Your task to perform on an android device: turn vacation reply on in the gmail app Image 0: 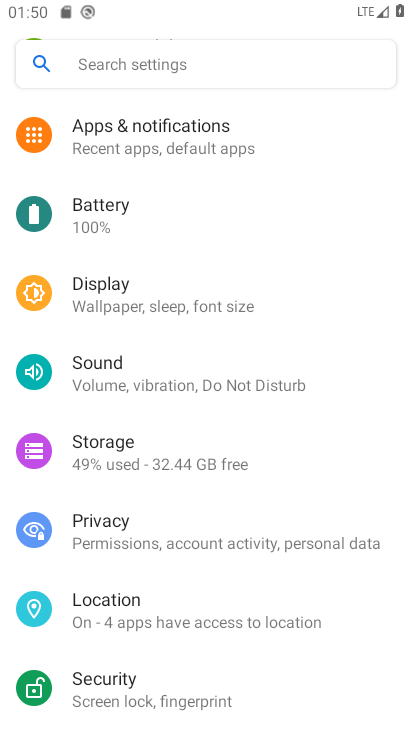
Step 0: press home button
Your task to perform on an android device: turn vacation reply on in the gmail app Image 1: 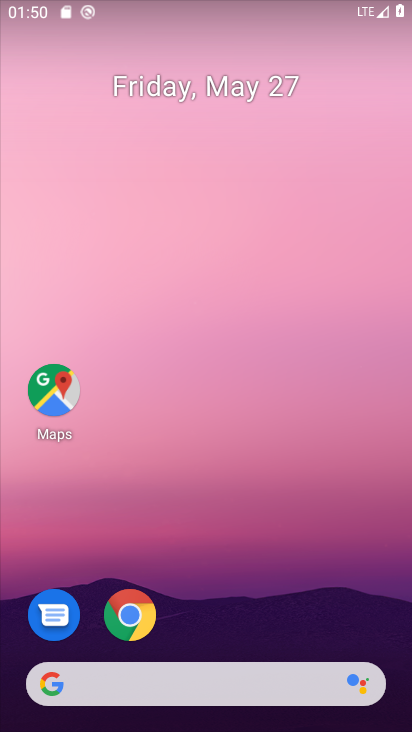
Step 1: drag from (341, 628) to (375, 234)
Your task to perform on an android device: turn vacation reply on in the gmail app Image 2: 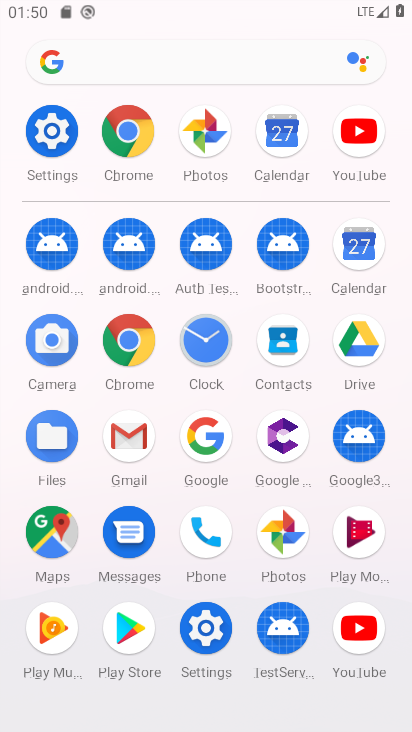
Step 2: click (116, 430)
Your task to perform on an android device: turn vacation reply on in the gmail app Image 3: 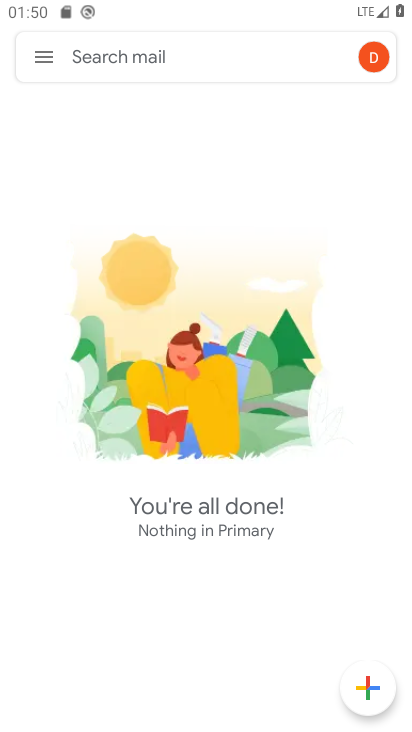
Step 3: click (49, 58)
Your task to perform on an android device: turn vacation reply on in the gmail app Image 4: 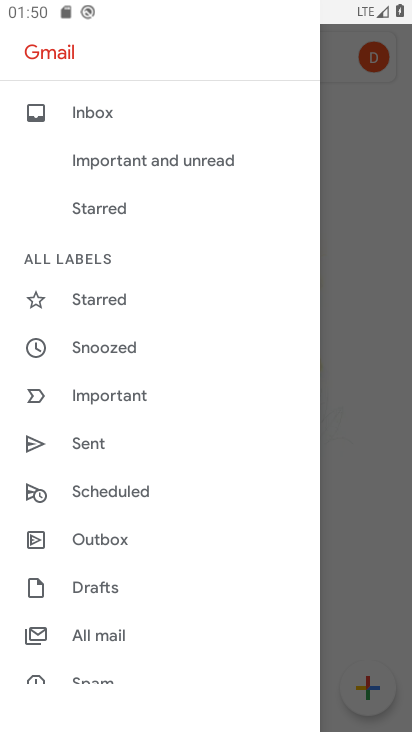
Step 4: drag from (206, 483) to (219, 378)
Your task to perform on an android device: turn vacation reply on in the gmail app Image 5: 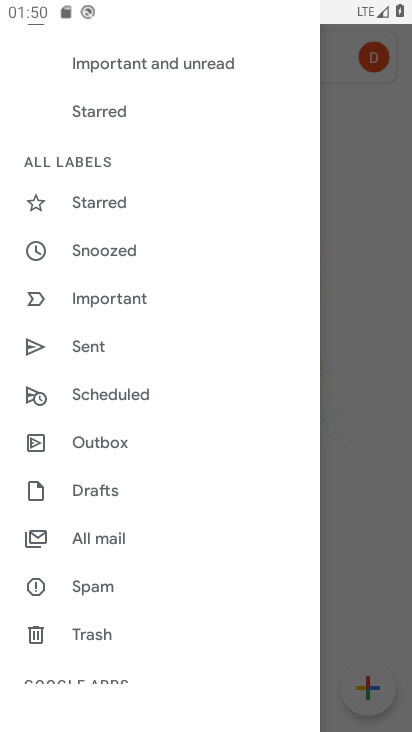
Step 5: drag from (239, 471) to (248, 382)
Your task to perform on an android device: turn vacation reply on in the gmail app Image 6: 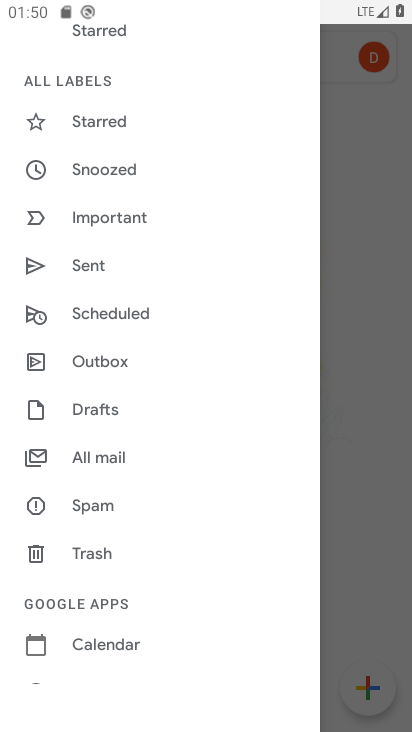
Step 6: drag from (260, 507) to (264, 411)
Your task to perform on an android device: turn vacation reply on in the gmail app Image 7: 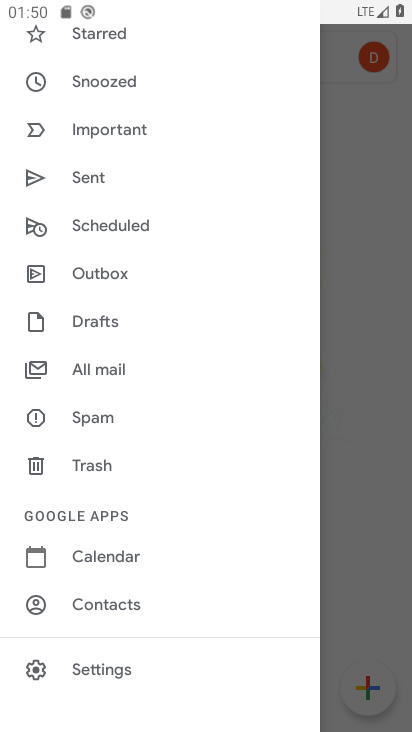
Step 7: drag from (244, 515) to (240, 411)
Your task to perform on an android device: turn vacation reply on in the gmail app Image 8: 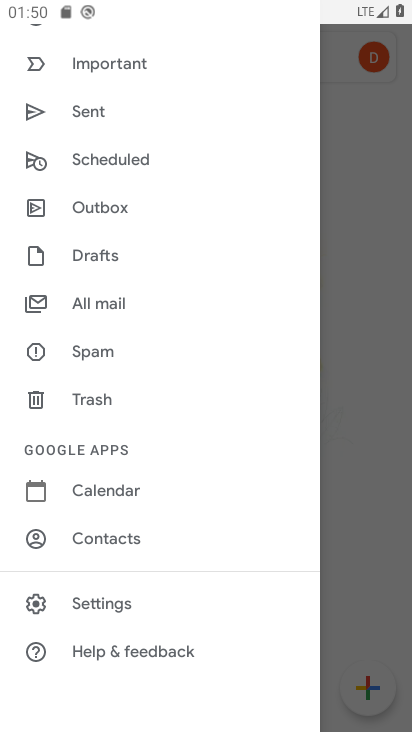
Step 8: drag from (228, 539) to (225, 449)
Your task to perform on an android device: turn vacation reply on in the gmail app Image 9: 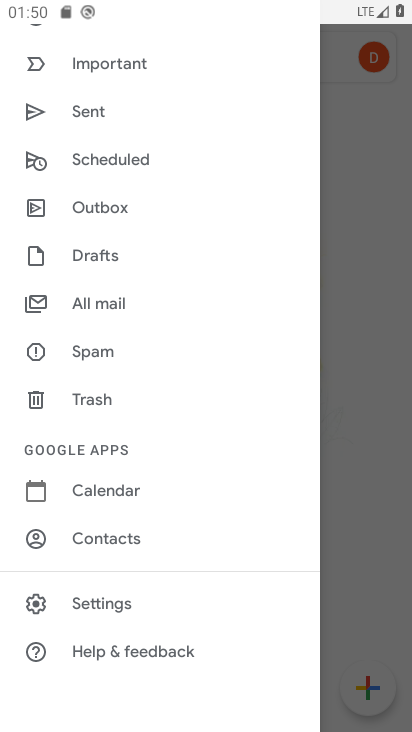
Step 9: click (141, 611)
Your task to perform on an android device: turn vacation reply on in the gmail app Image 10: 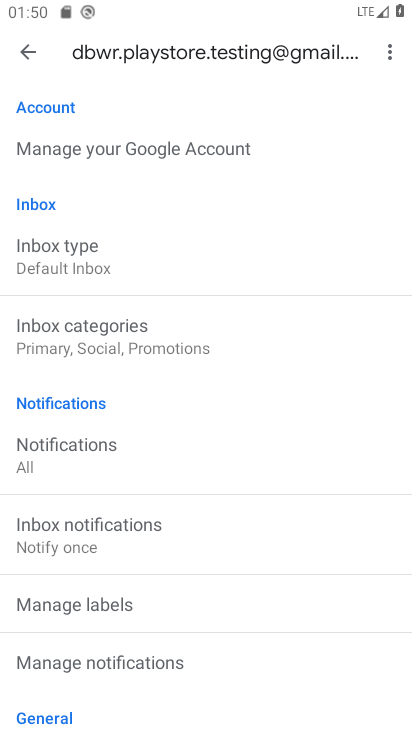
Step 10: drag from (266, 464) to (273, 401)
Your task to perform on an android device: turn vacation reply on in the gmail app Image 11: 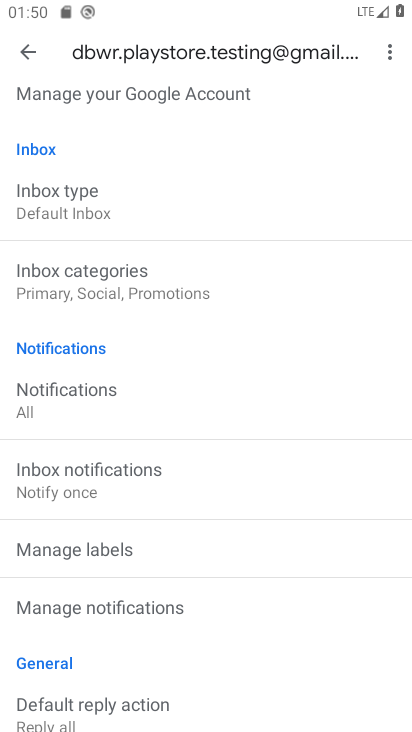
Step 11: drag from (281, 489) to (281, 423)
Your task to perform on an android device: turn vacation reply on in the gmail app Image 12: 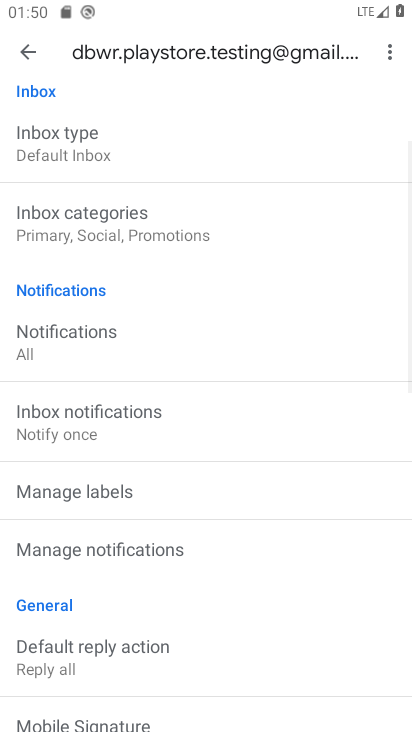
Step 12: drag from (280, 501) to (279, 373)
Your task to perform on an android device: turn vacation reply on in the gmail app Image 13: 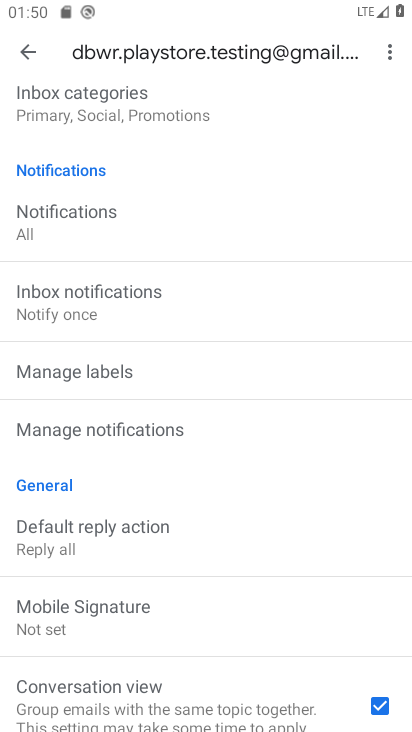
Step 13: drag from (276, 480) to (280, 381)
Your task to perform on an android device: turn vacation reply on in the gmail app Image 14: 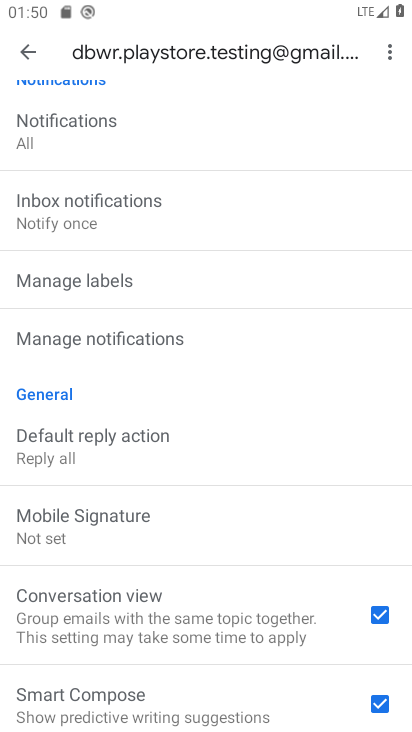
Step 14: drag from (305, 510) to (313, 400)
Your task to perform on an android device: turn vacation reply on in the gmail app Image 15: 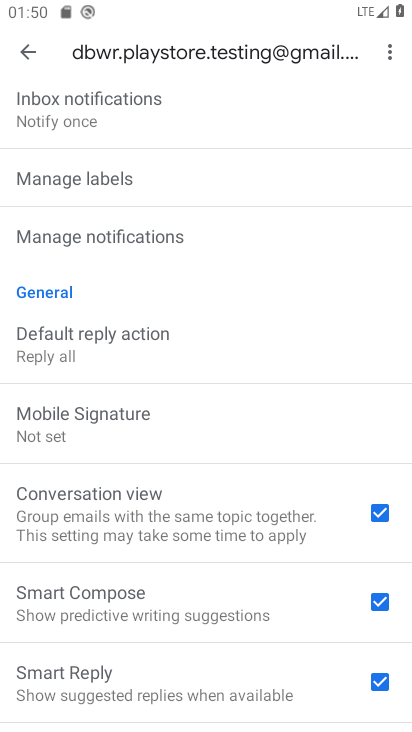
Step 15: drag from (321, 540) to (323, 439)
Your task to perform on an android device: turn vacation reply on in the gmail app Image 16: 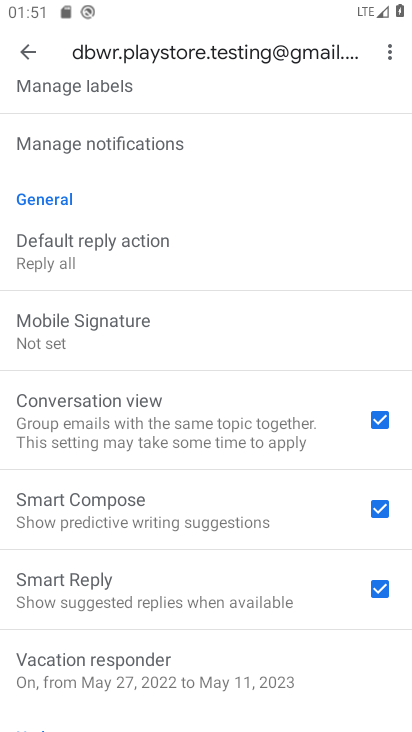
Step 16: drag from (318, 553) to (319, 462)
Your task to perform on an android device: turn vacation reply on in the gmail app Image 17: 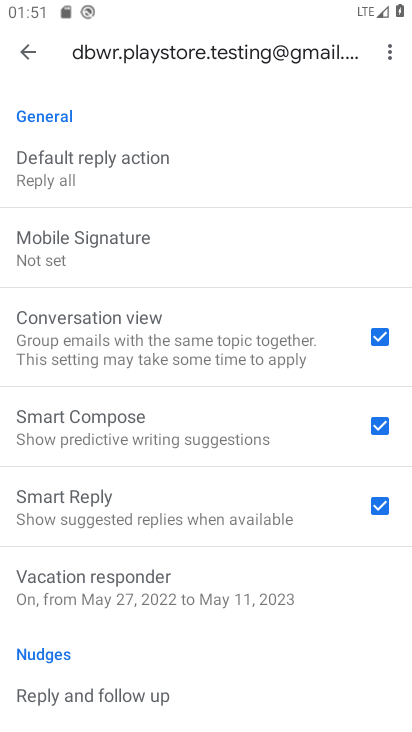
Step 17: drag from (311, 580) to (303, 488)
Your task to perform on an android device: turn vacation reply on in the gmail app Image 18: 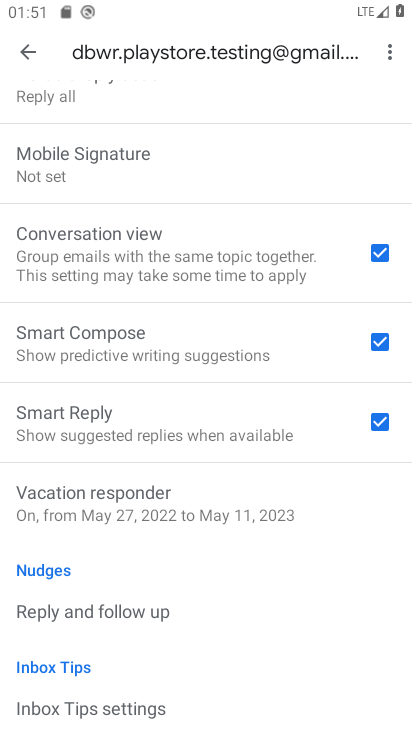
Step 18: drag from (299, 595) to (306, 484)
Your task to perform on an android device: turn vacation reply on in the gmail app Image 19: 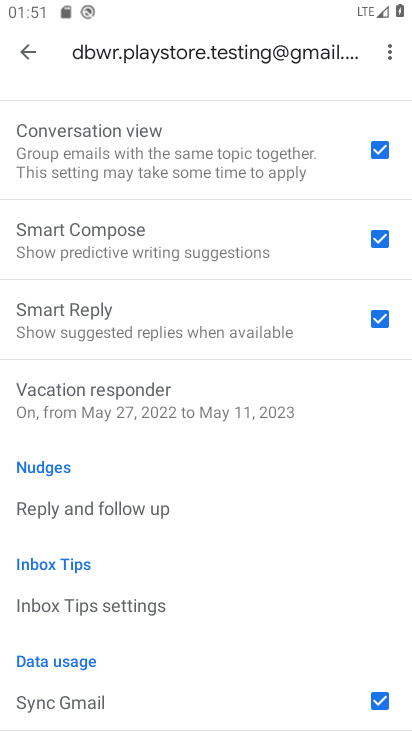
Step 19: drag from (311, 600) to (311, 484)
Your task to perform on an android device: turn vacation reply on in the gmail app Image 20: 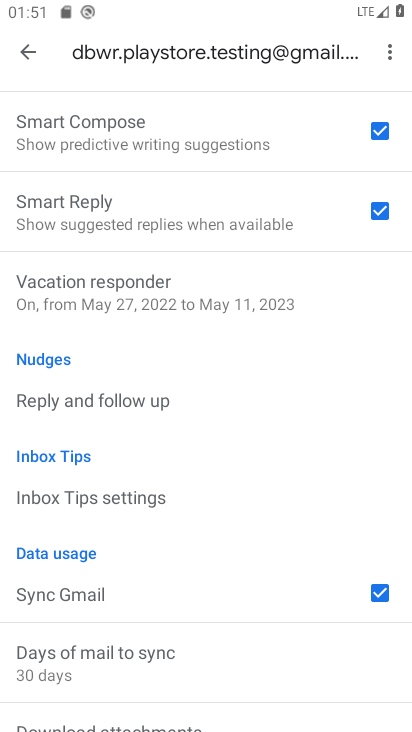
Step 20: drag from (294, 575) to (291, 424)
Your task to perform on an android device: turn vacation reply on in the gmail app Image 21: 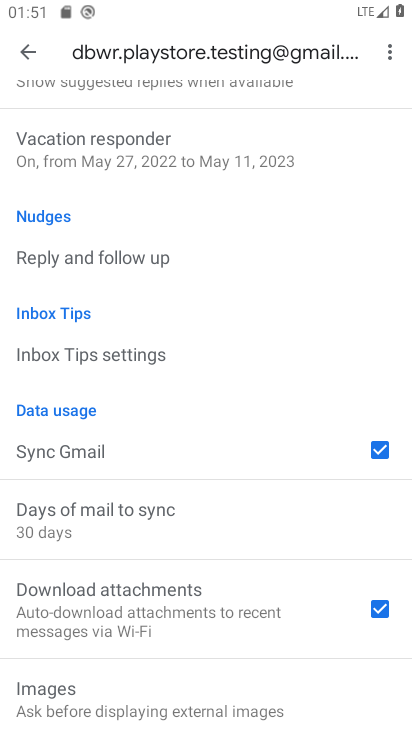
Step 21: click (263, 157)
Your task to perform on an android device: turn vacation reply on in the gmail app Image 22: 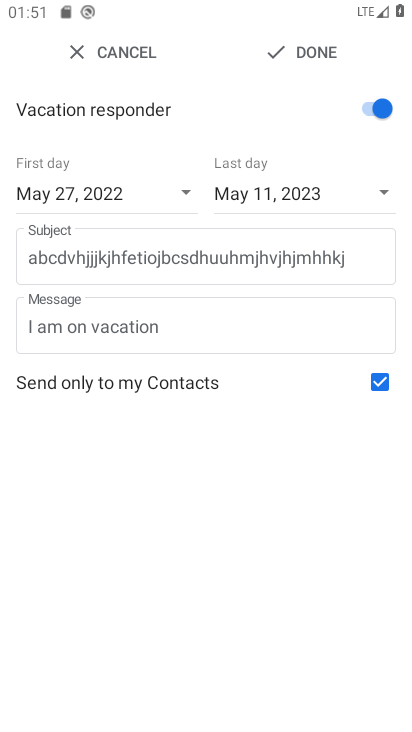
Step 22: task complete